Your task to perform on an android device: uninstall "Messages" Image 0: 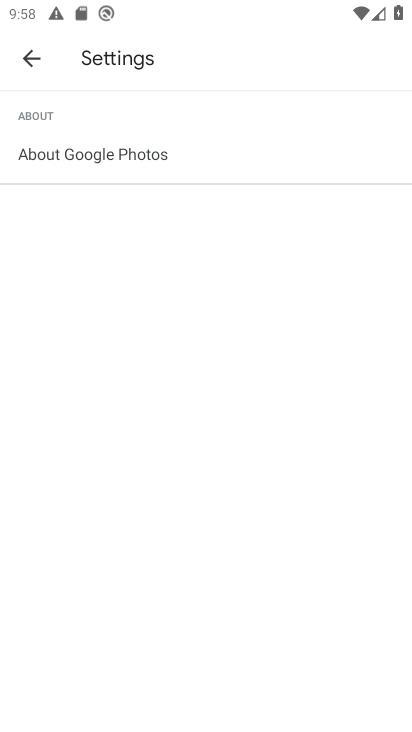
Step 0: press home button
Your task to perform on an android device: uninstall "Messages" Image 1: 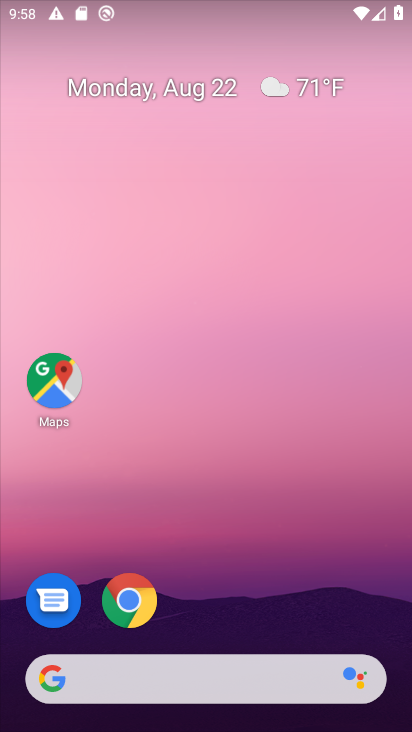
Step 1: drag from (214, 578) to (183, 148)
Your task to perform on an android device: uninstall "Messages" Image 2: 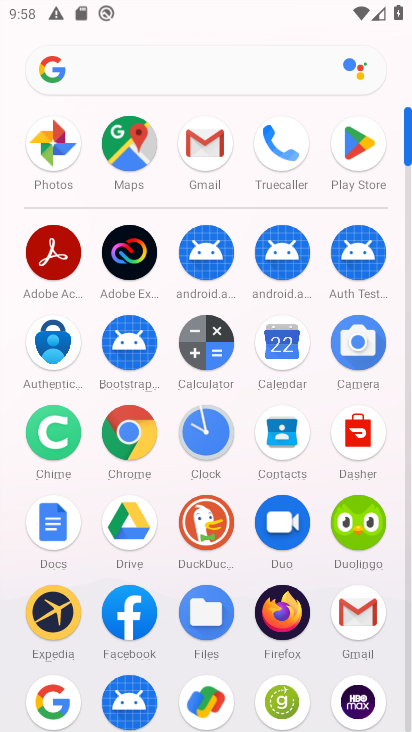
Step 2: click (341, 152)
Your task to perform on an android device: uninstall "Messages" Image 3: 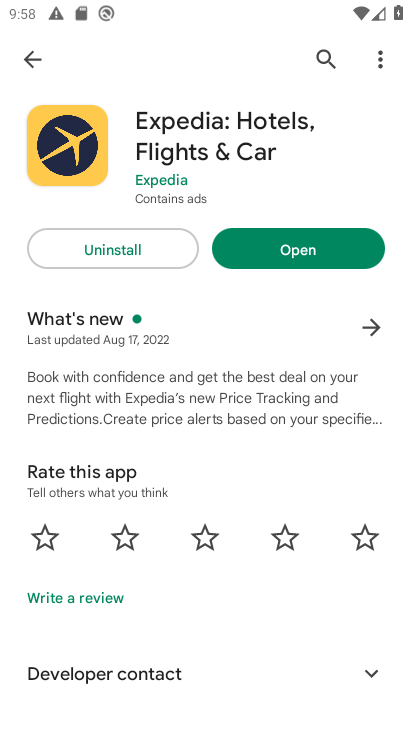
Step 3: click (327, 48)
Your task to perform on an android device: uninstall "Messages" Image 4: 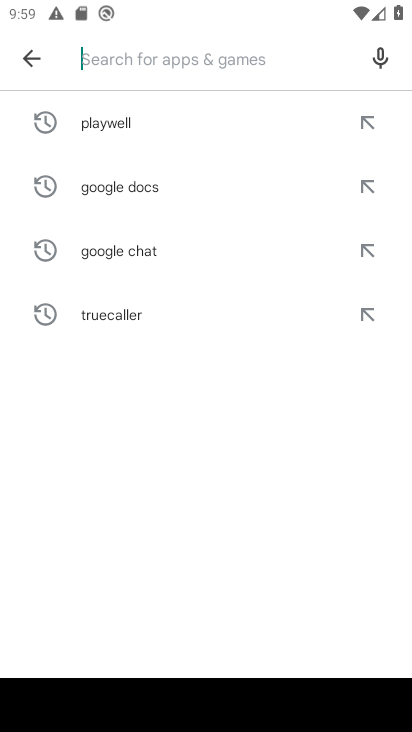
Step 4: type "Messages"
Your task to perform on an android device: uninstall "Messages" Image 5: 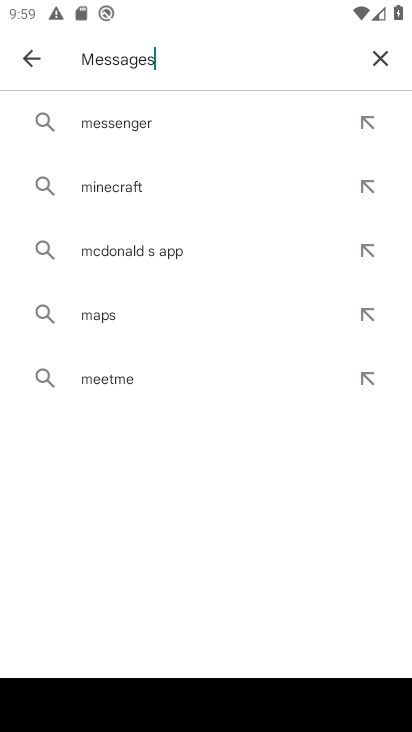
Step 5: type ""
Your task to perform on an android device: uninstall "Messages" Image 6: 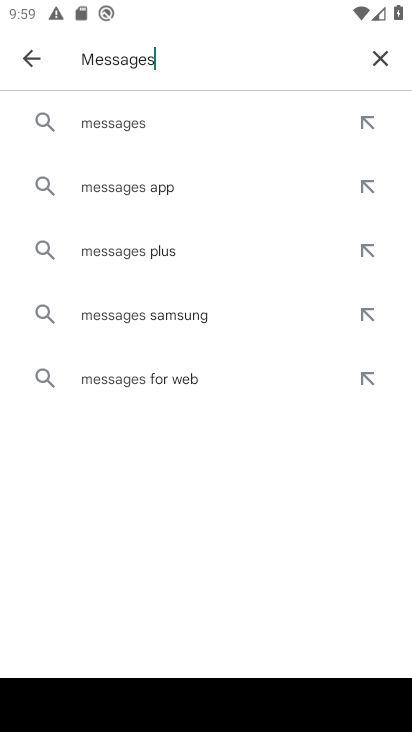
Step 6: click (146, 118)
Your task to perform on an android device: uninstall "Messages" Image 7: 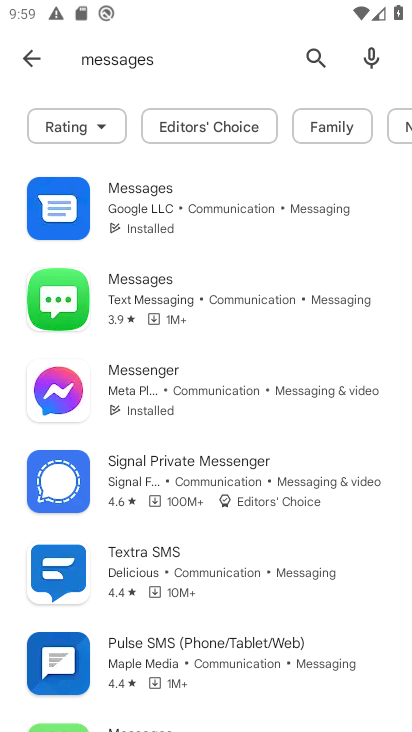
Step 7: click (223, 209)
Your task to perform on an android device: uninstall "Messages" Image 8: 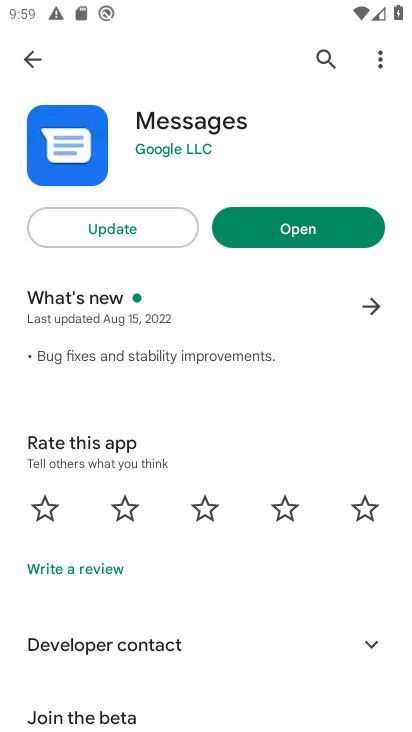
Step 8: click (158, 229)
Your task to perform on an android device: uninstall "Messages" Image 9: 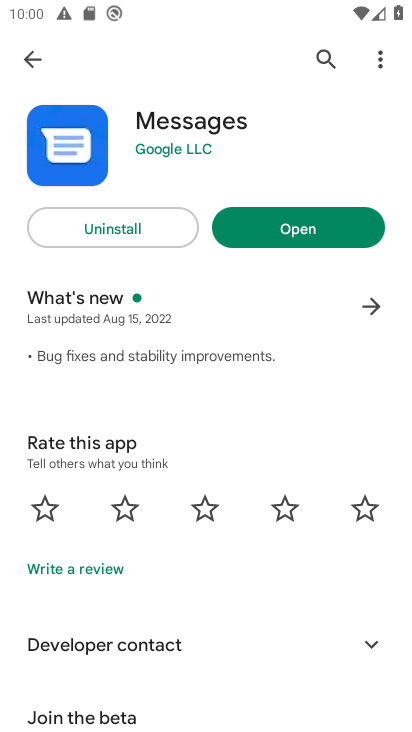
Step 9: click (142, 241)
Your task to perform on an android device: uninstall "Messages" Image 10: 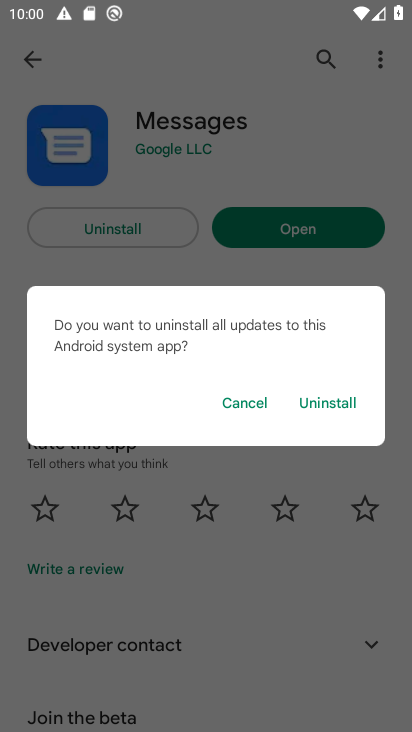
Step 10: click (342, 403)
Your task to perform on an android device: uninstall "Messages" Image 11: 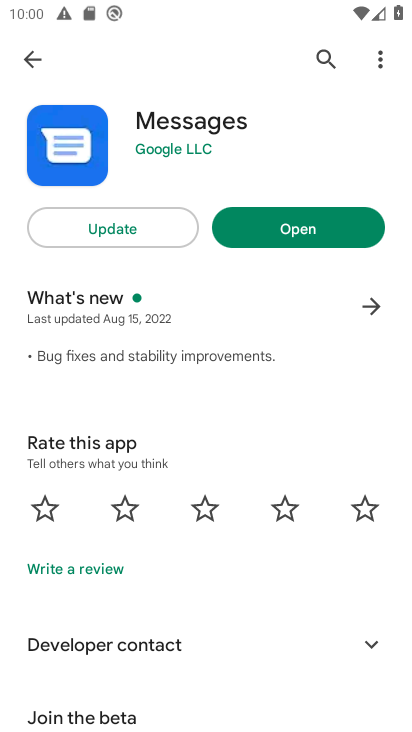
Step 11: task complete